Your task to perform on an android device: set the timer Image 0: 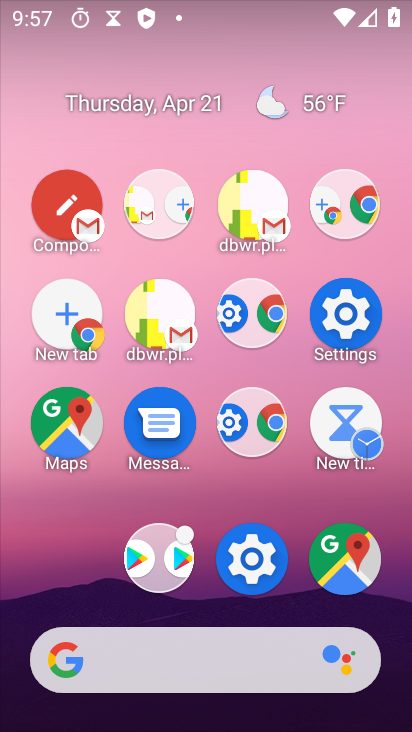
Step 0: drag from (287, 684) to (185, 82)
Your task to perform on an android device: set the timer Image 1: 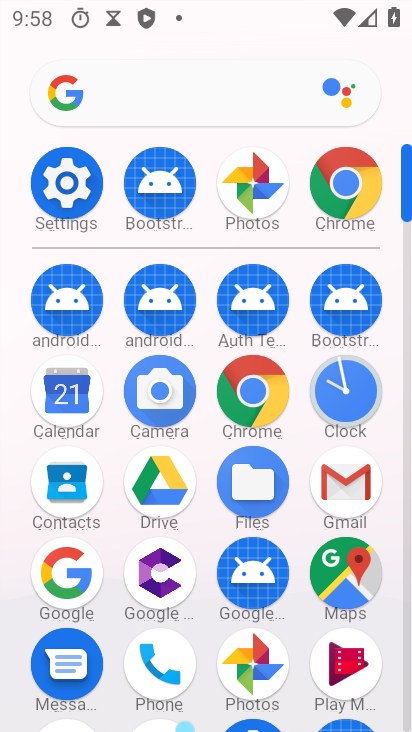
Step 1: click (356, 391)
Your task to perform on an android device: set the timer Image 2: 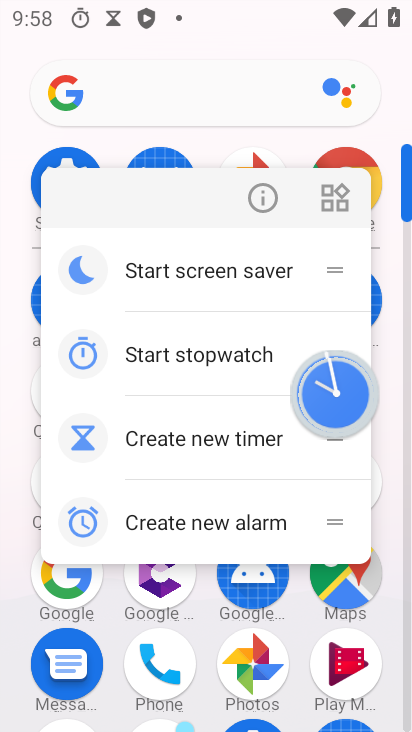
Step 2: click (346, 397)
Your task to perform on an android device: set the timer Image 3: 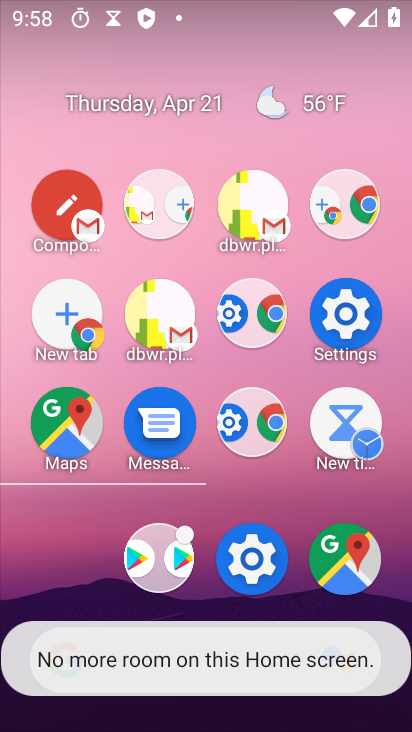
Step 3: drag from (296, 637) to (227, 119)
Your task to perform on an android device: set the timer Image 4: 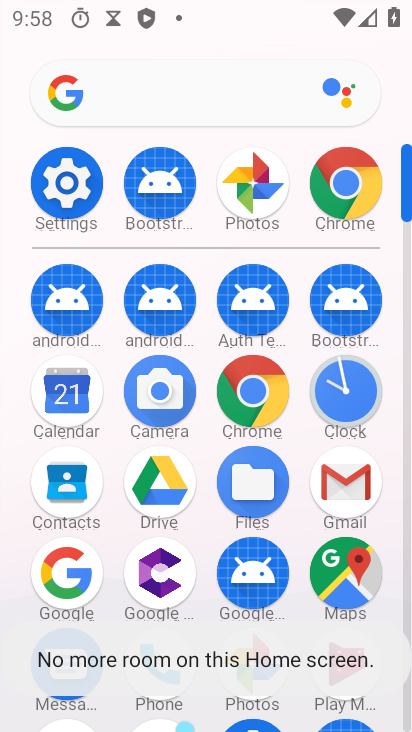
Step 4: drag from (257, 465) to (230, 64)
Your task to perform on an android device: set the timer Image 5: 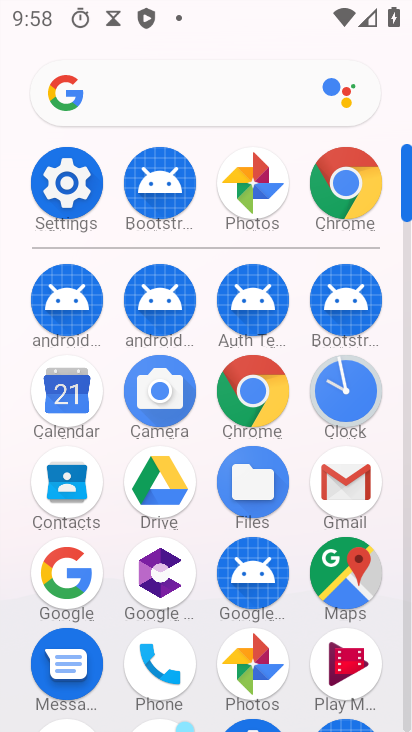
Step 5: drag from (300, 442) to (268, 58)
Your task to perform on an android device: set the timer Image 6: 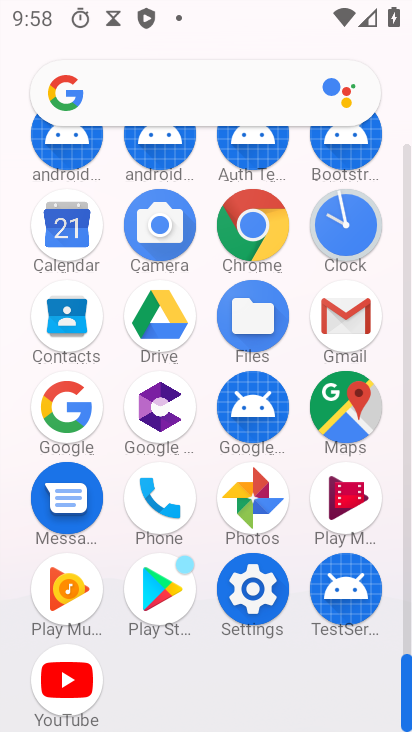
Step 6: click (351, 225)
Your task to perform on an android device: set the timer Image 7: 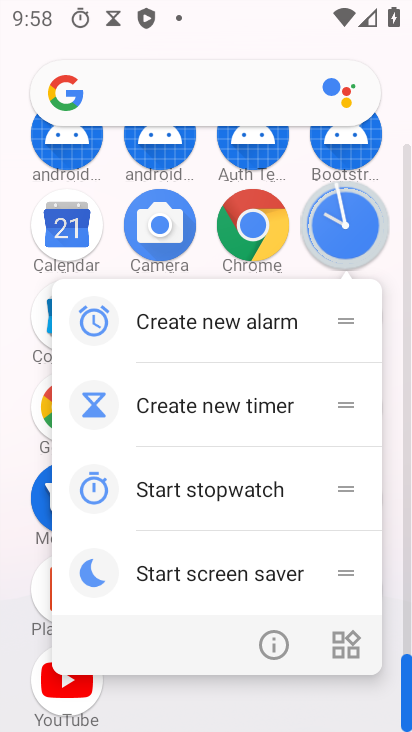
Step 7: click (351, 225)
Your task to perform on an android device: set the timer Image 8: 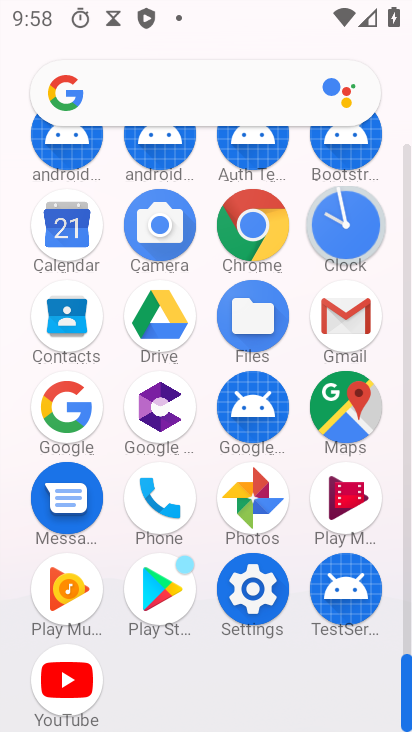
Step 8: click (351, 225)
Your task to perform on an android device: set the timer Image 9: 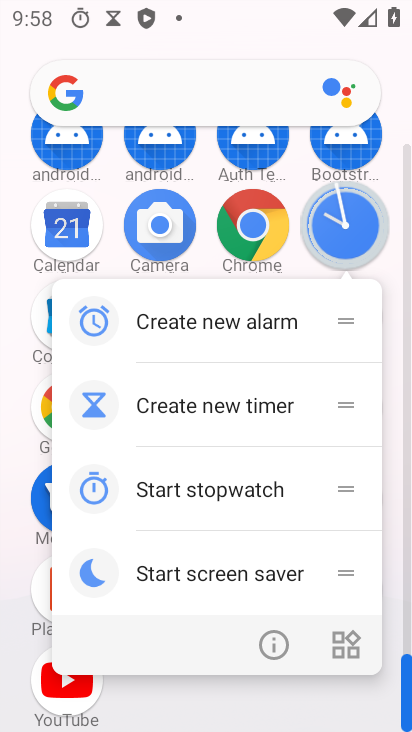
Step 9: click (351, 225)
Your task to perform on an android device: set the timer Image 10: 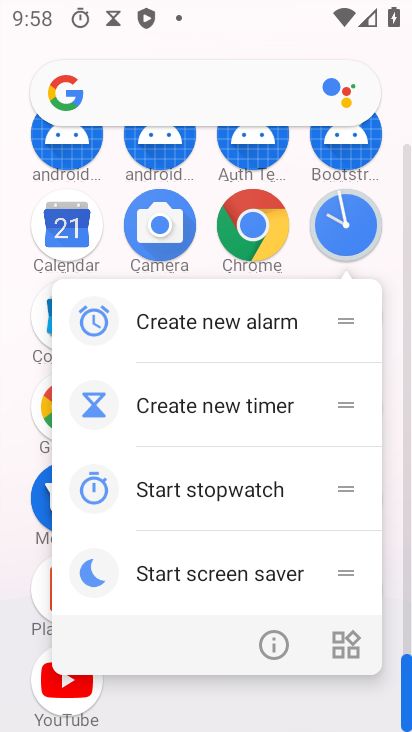
Step 10: click (351, 225)
Your task to perform on an android device: set the timer Image 11: 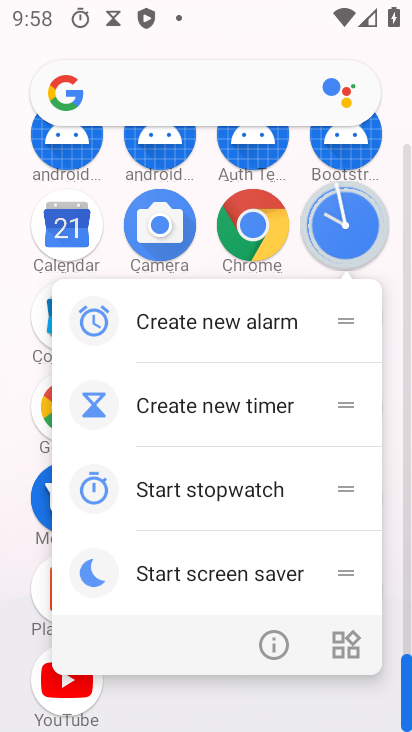
Step 11: click (351, 225)
Your task to perform on an android device: set the timer Image 12: 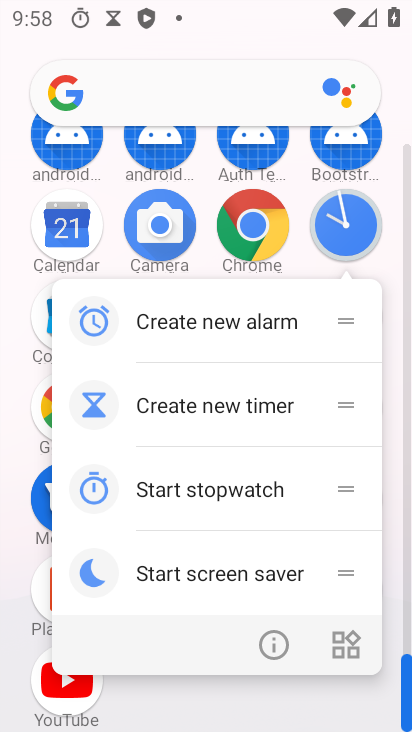
Step 12: click (351, 225)
Your task to perform on an android device: set the timer Image 13: 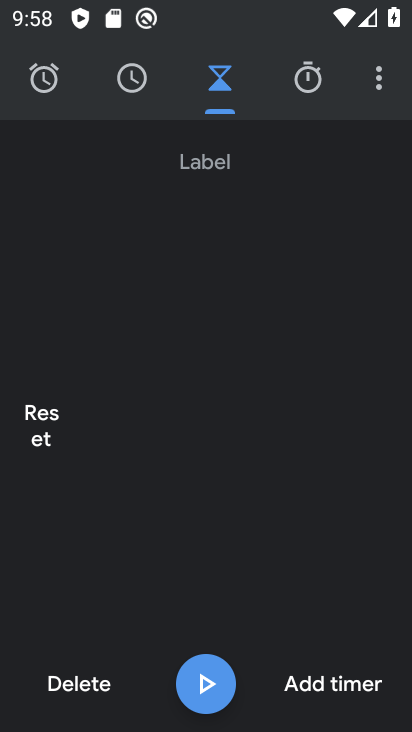
Step 13: click (308, 78)
Your task to perform on an android device: set the timer Image 14: 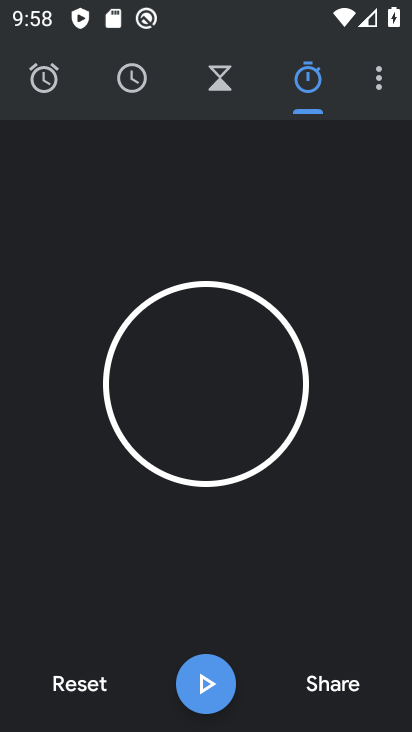
Step 14: click (201, 685)
Your task to perform on an android device: set the timer Image 15: 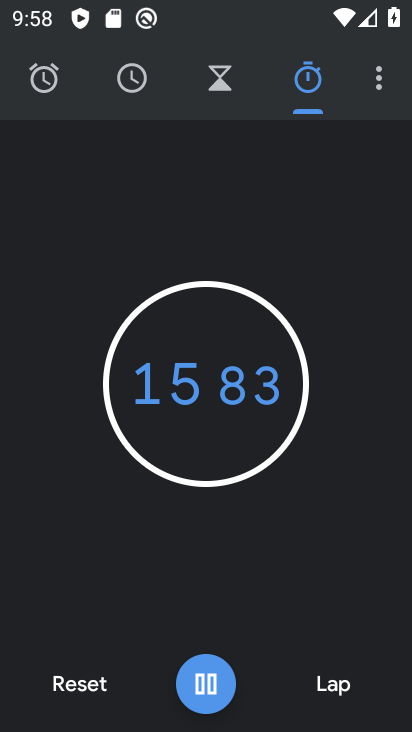
Step 15: click (208, 682)
Your task to perform on an android device: set the timer Image 16: 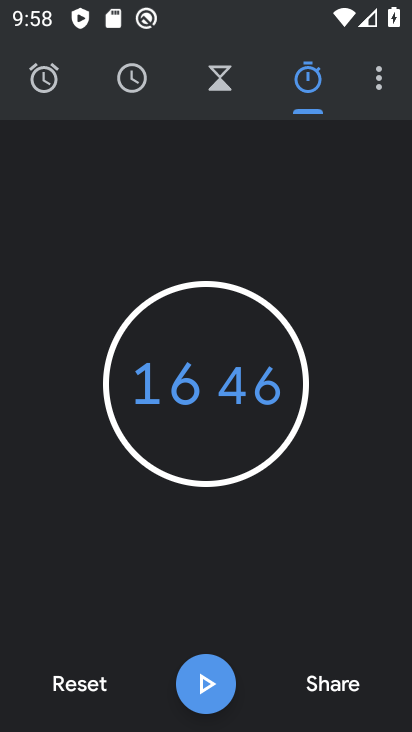
Step 16: task complete